Your task to perform on an android device: change text size in settings app Image 0: 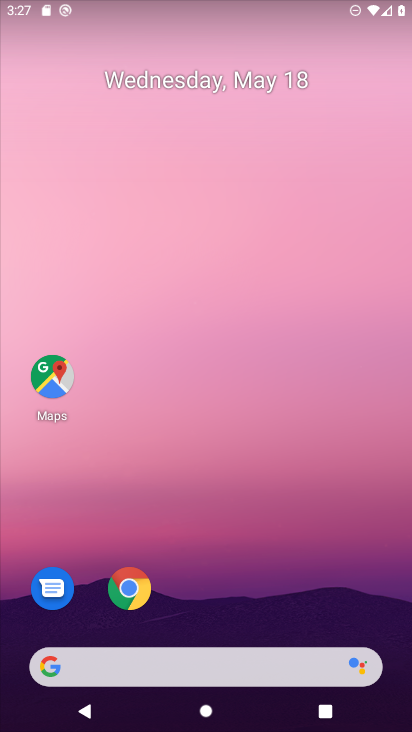
Step 0: drag from (236, 614) to (236, 179)
Your task to perform on an android device: change text size in settings app Image 1: 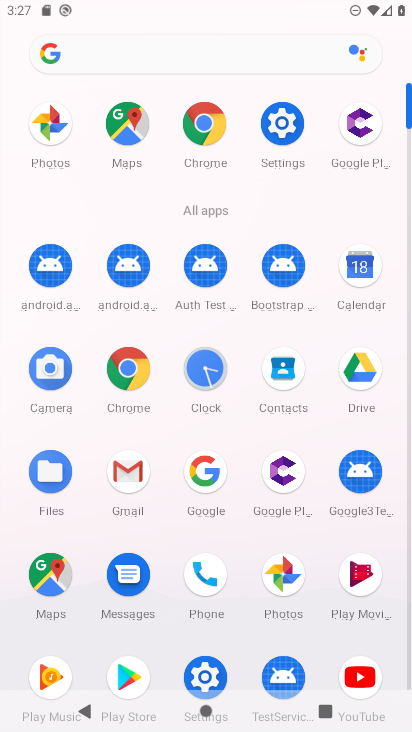
Step 1: click (263, 134)
Your task to perform on an android device: change text size in settings app Image 2: 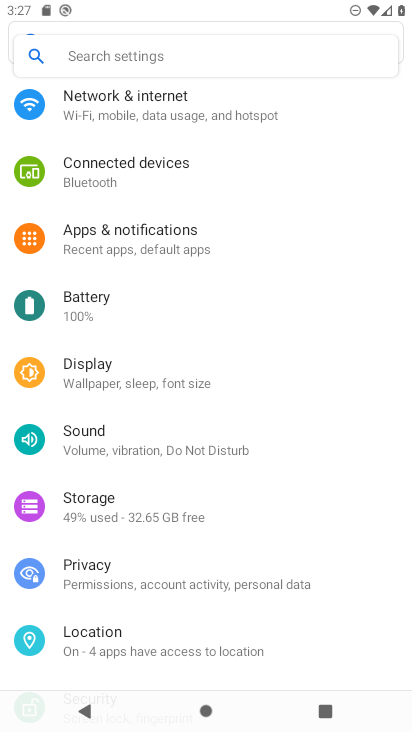
Step 2: click (163, 367)
Your task to perform on an android device: change text size in settings app Image 3: 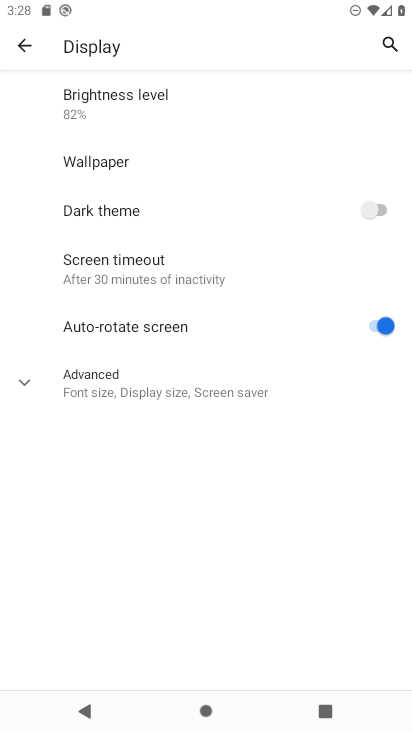
Step 3: click (129, 367)
Your task to perform on an android device: change text size in settings app Image 4: 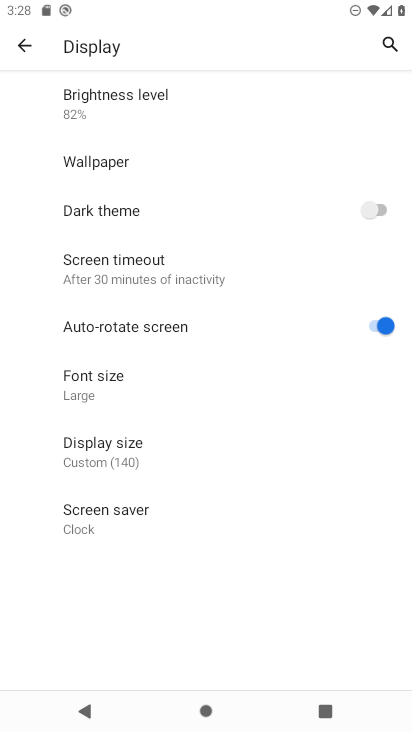
Step 4: click (109, 402)
Your task to perform on an android device: change text size in settings app Image 5: 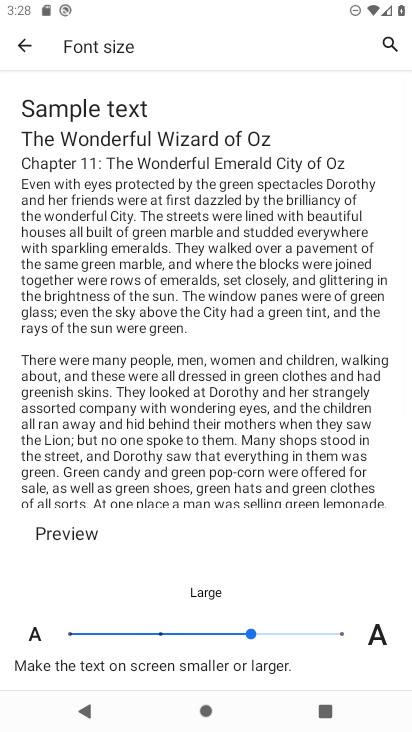
Step 5: click (125, 623)
Your task to perform on an android device: change text size in settings app Image 6: 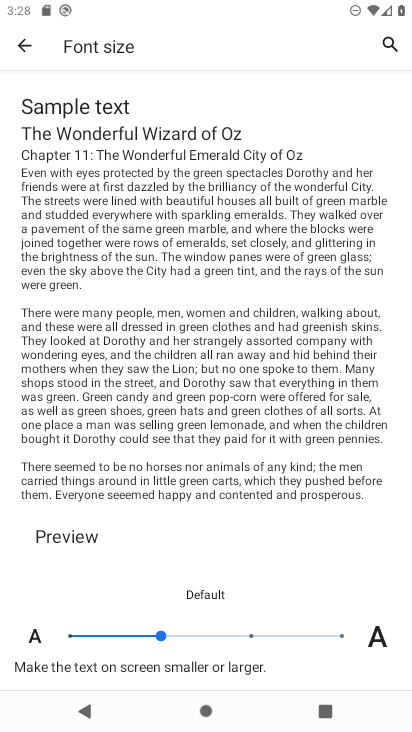
Step 6: task complete